Your task to perform on an android device: turn on airplane mode Image 0: 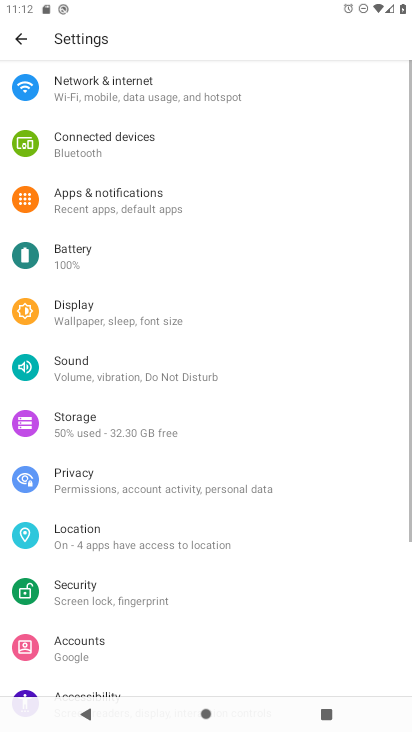
Step 0: press home button
Your task to perform on an android device: turn on airplane mode Image 1: 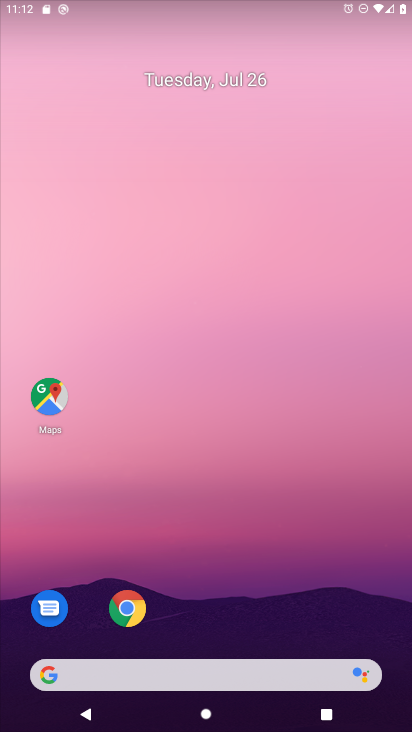
Step 1: drag from (285, 578) to (208, 54)
Your task to perform on an android device: turn on airplane mode Image 2: 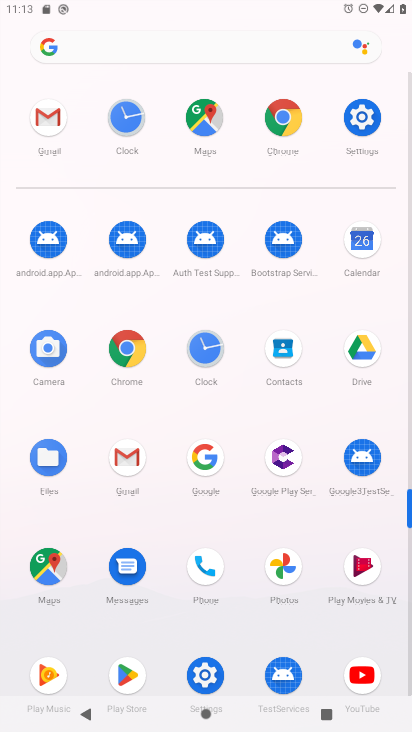
Step 2: click (363, 109)
Your task to perform on an android device: turn on airplane mode Image 3: 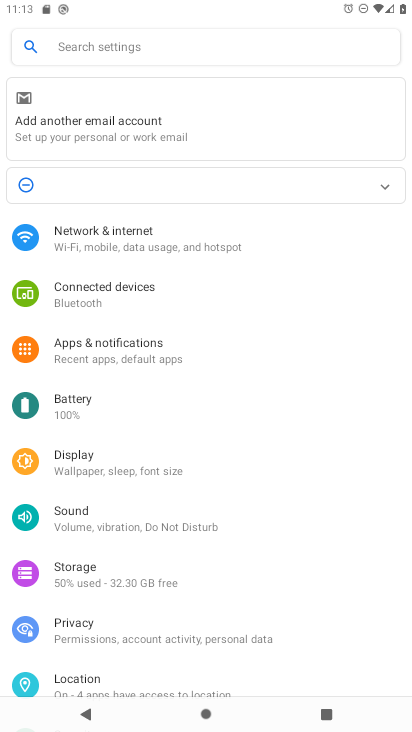
Step 3: click (106, 259)
Your task to perform on an android device: turn on airplane mode Image 4: 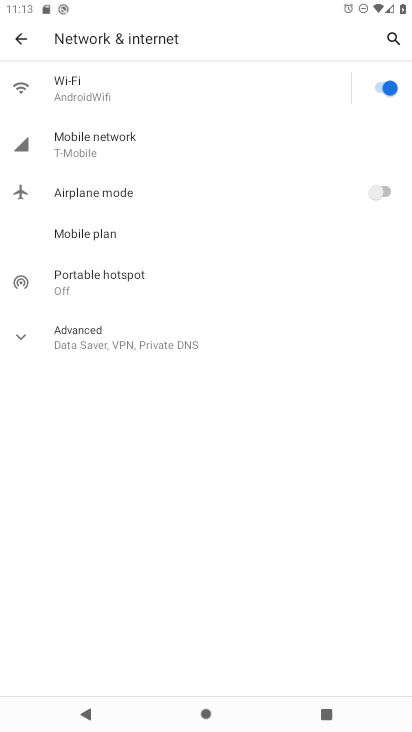
Step 4: click (306, 192)
Your task to perform on an android device: turn on airplane mode Image 5: 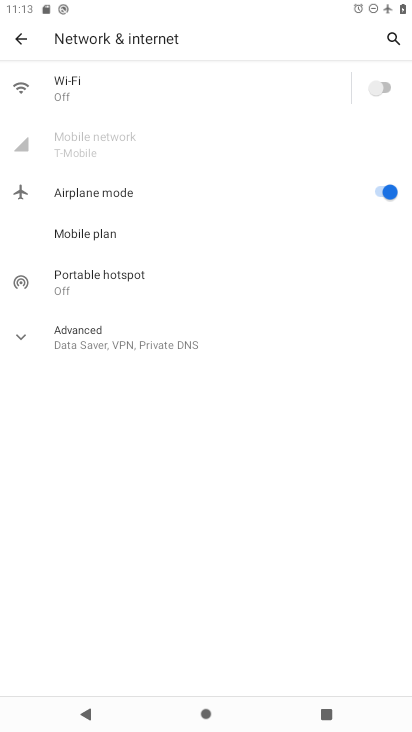
Step 5: task complete